Your task to perform on an android device: check android version Image 0: 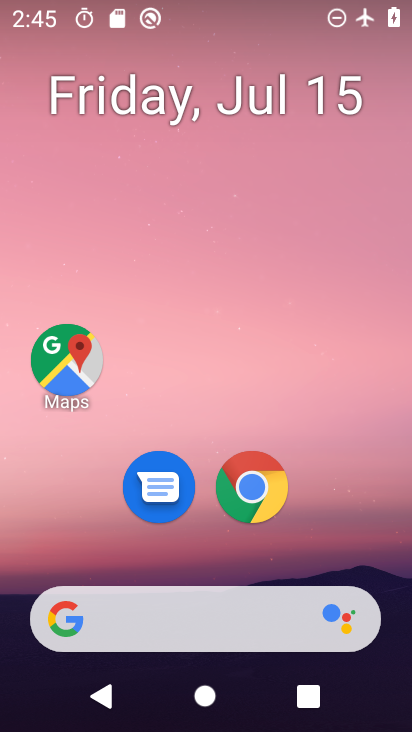
Step 0: drag from (230, 578) to (365, 190)
Your task to perform on an android device: check android version Image 1: 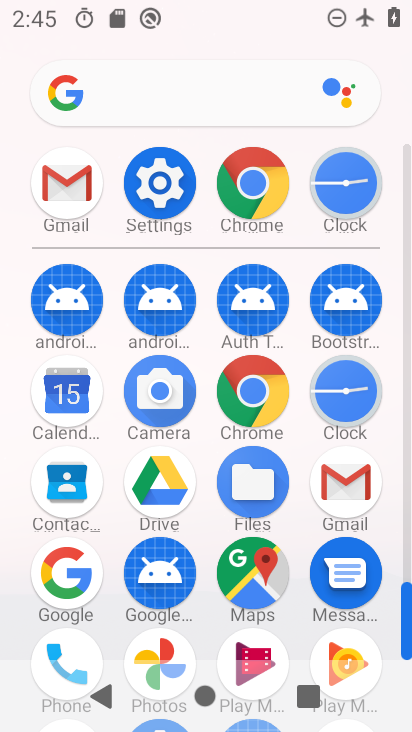
Step 1: click (157, 196)
Your task to perform on an android device: check android version Image 2: 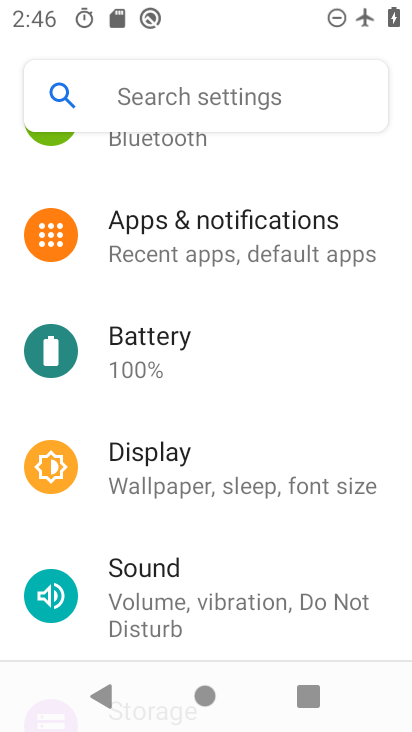
Step 2: drag from (200, 552) to (262, 152)
Your task to perform on an android device: check android version Image 3: 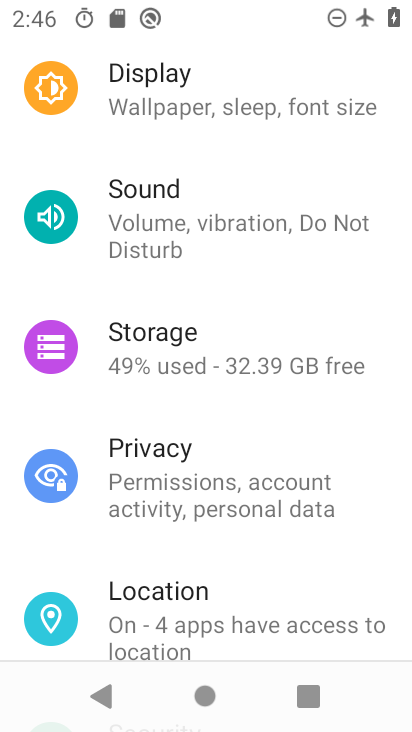
Step 3: drag from (238, 551) to (283, 273)
Your task to perform on an android device: check android version Image 4: 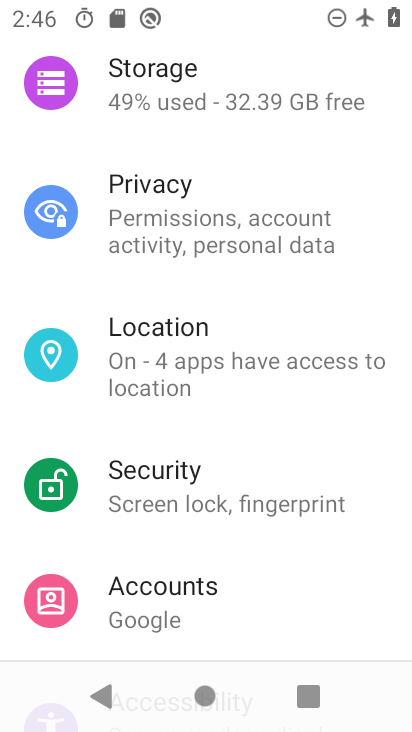
Step 4: drag from (209, 505) to (287, 160)
Your task to perform on an android device: check android version Image 5: 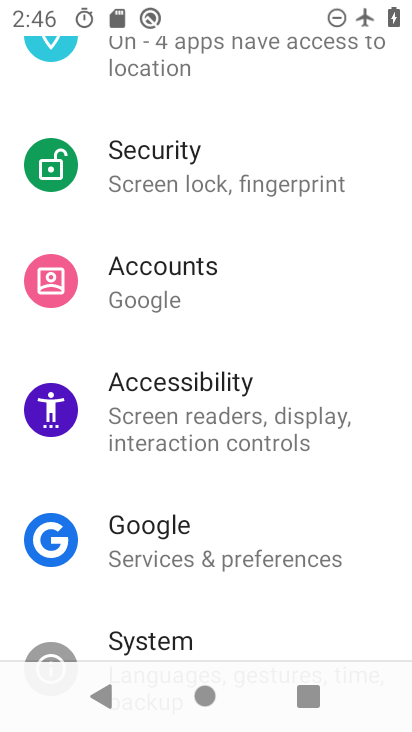
Step 5: drag from (194, 577) to (261, 228)
Your task to perform on an android device: check android version Image 6: 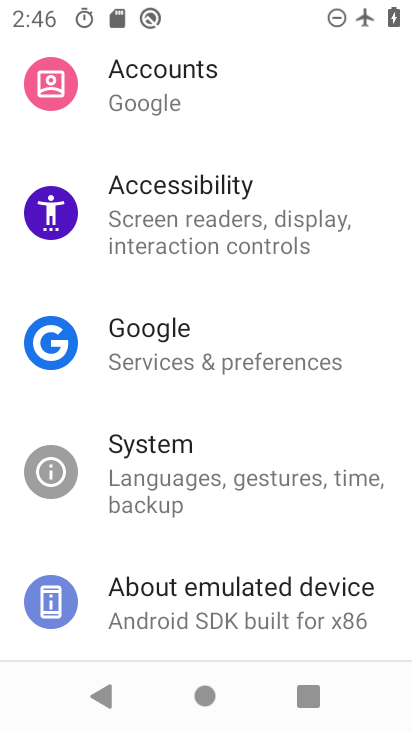
Step 6: click (199, 611)
Your task to perform on an android device: check android version Image 7: 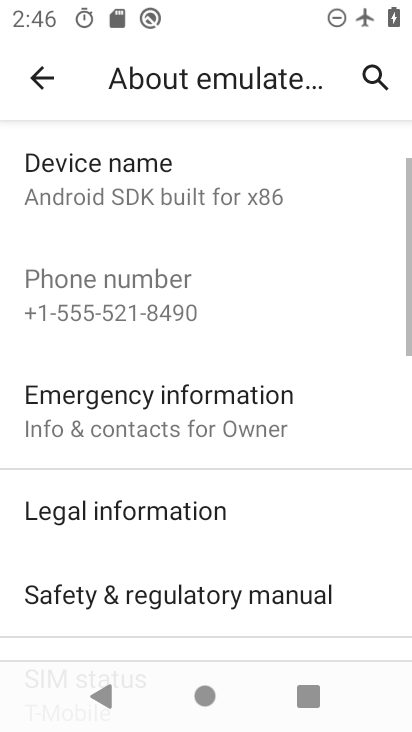
Step 7: drag from (189, 394) to (196, 328)
Your task to perform on an android device: check android version Image 8: 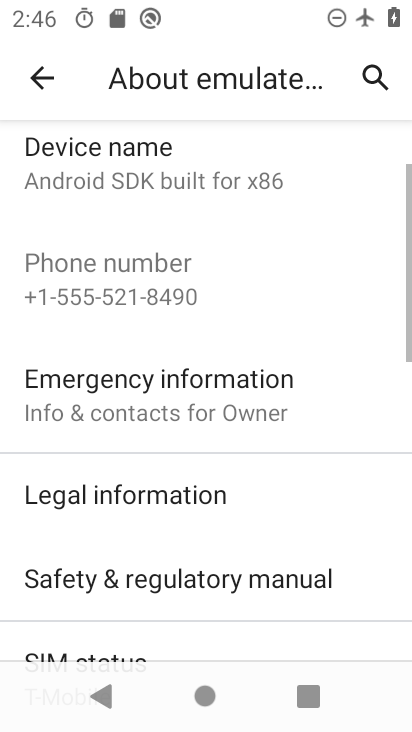
Step 8: drag from (217, 479) to (271, 249)
Your task to perform on an android device: check android version Image 9: 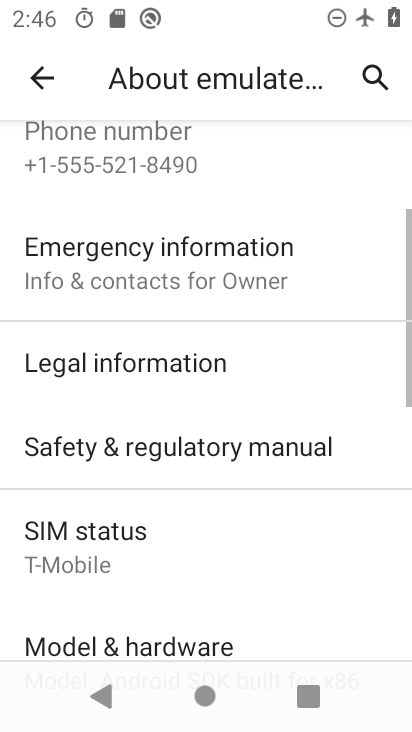
Step 9: drag from (202, 549) to (258, 328)
Your task to perform on an android device: check android version Image 10: 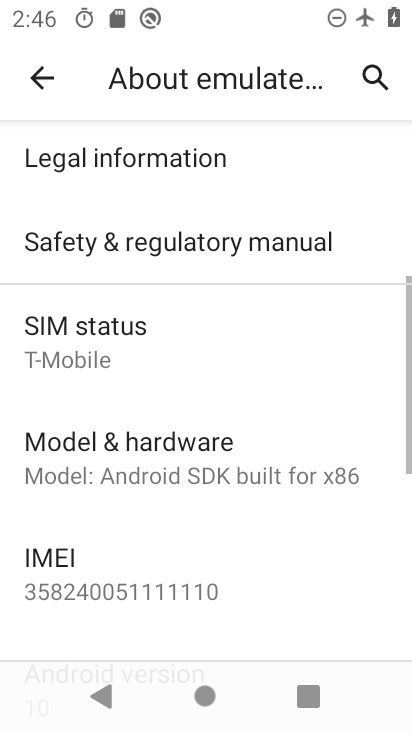
Step 10: drag from (200, 491) to (242, 246)
Your task to perform on an android device: check android version Image 11: 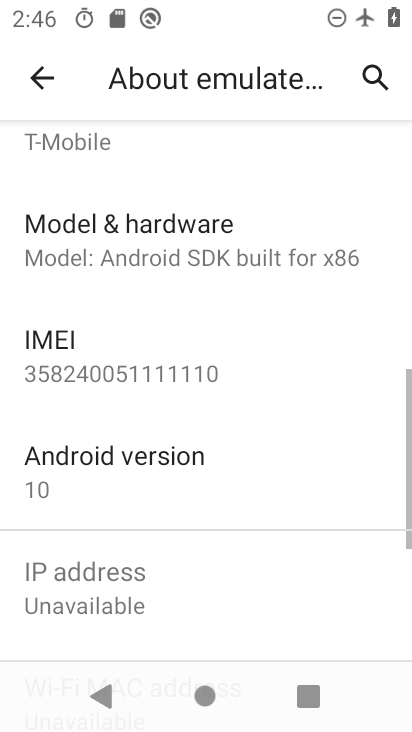
Step 11: click (235, 481)
Your task to perform on an android device: check android version Image 12: 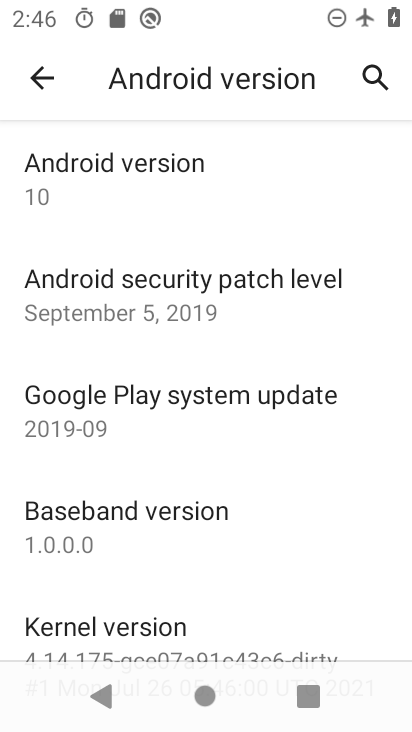
Step 12: click (192, 176)
Your task to perform on an android device: check android version Image 13: 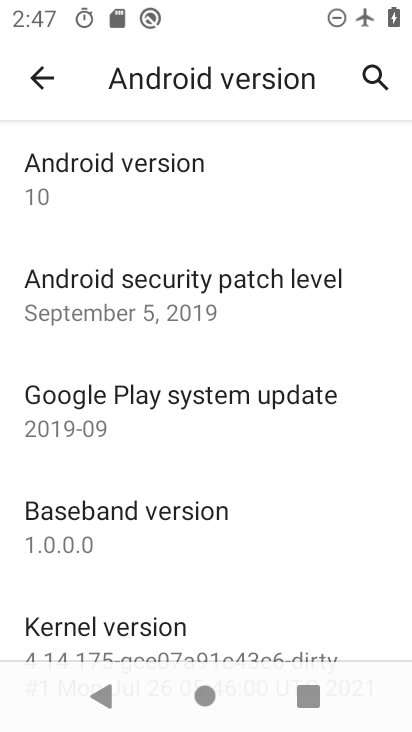
Step 13: task complete